Your task to perform on an android device: open wifi settings Image 0: 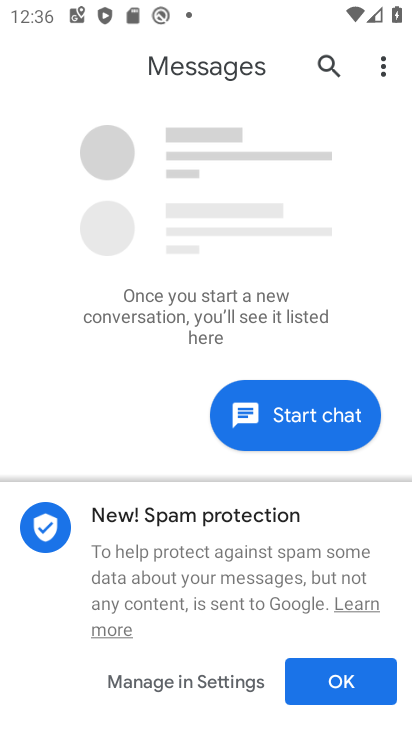
Step 0: press home button
Your task to perform on an android device: open wifi settings Image 1: 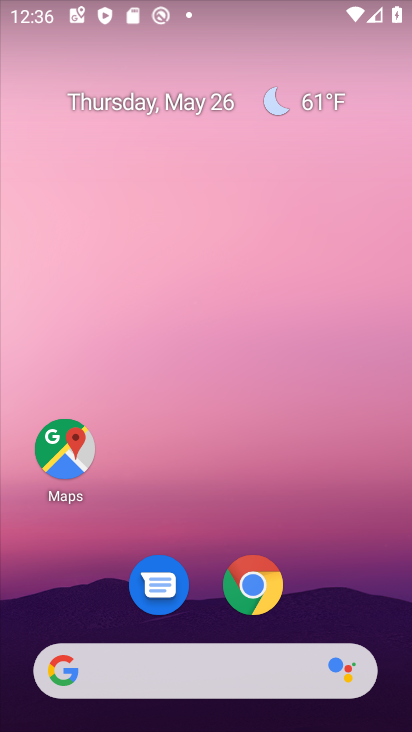
Step 1: drag from (189, 484) to (246, 40)
Your task to perform on an android device: open wifi settings Image 2: 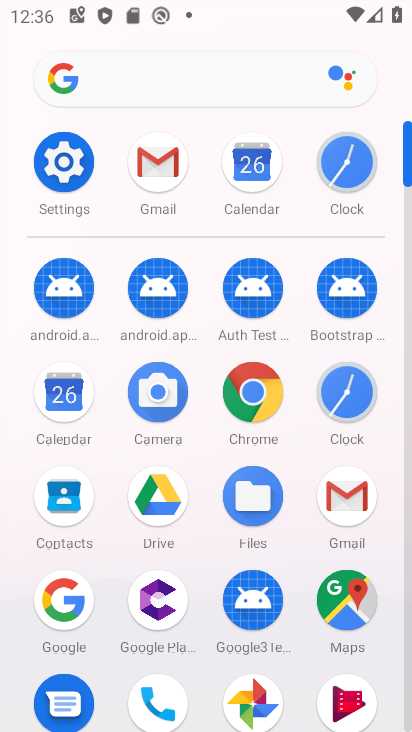
Step 2: click (79, 169)
Your task to perform on an android device: open wifi settings Image 3: 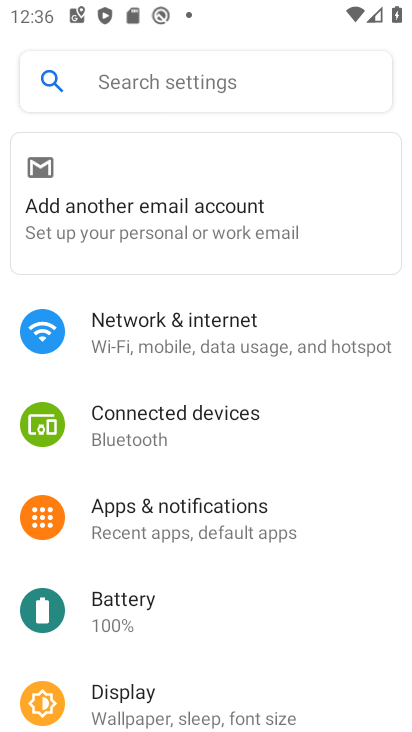
Step 3: click (201, 337)
Your task to perform on an android device: open wifi settings Image 4: 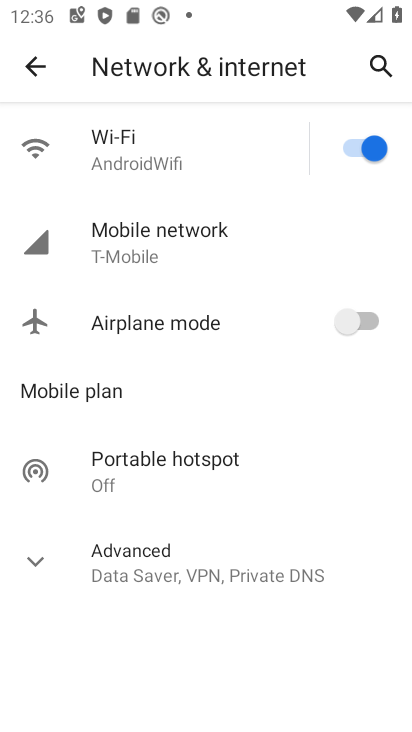
Step 4: click (184, 156)
Your task to perform on an android device: open wifi settings Image 5: 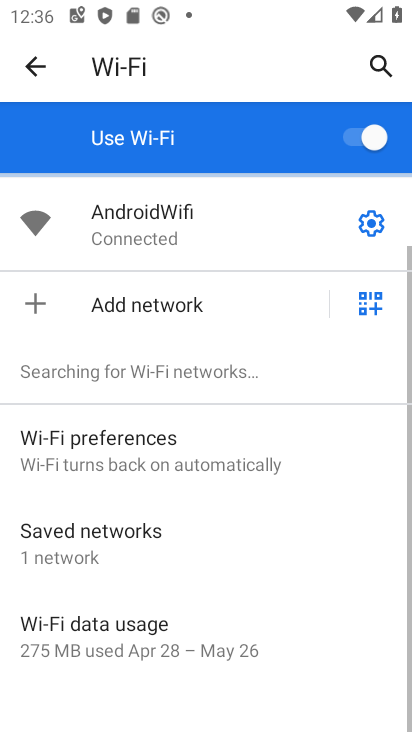
Step 5: task complete